Your task to perform on an android device: Open Yahoo.com Image 0: 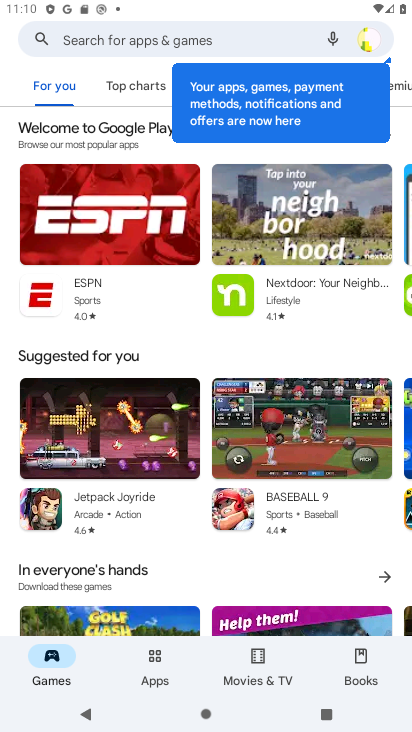
Step 0: press home button
Your task to perform on an android device: Open Yahoo.com Image 1: 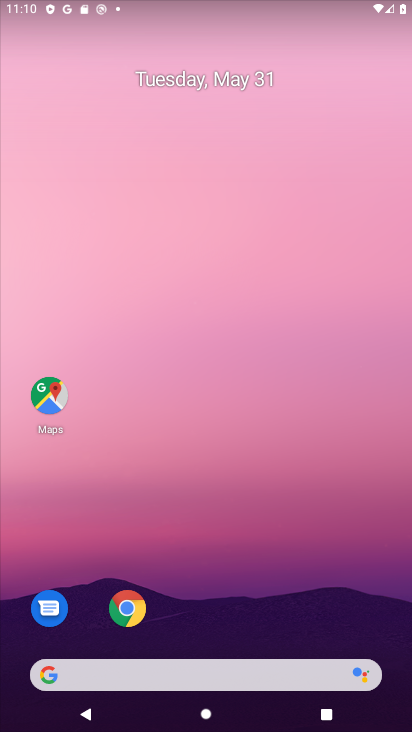
Step 1: click (110, 601)
Your task to perform on an android device: Open Yahoo.com Image 2: 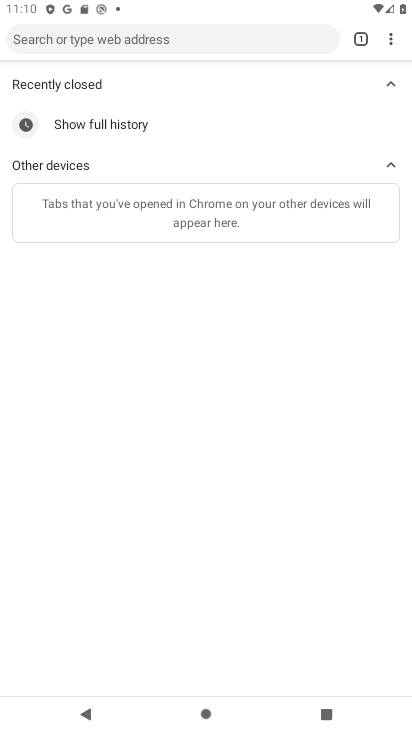
Step 2: click (200, 34)
Your task to perform on an android device: Open Yahoo.com Image 3: 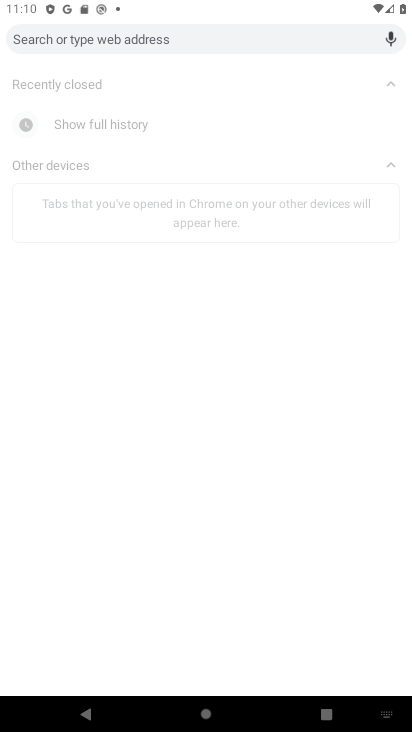
Step 3: type "Yahoo.com"
Your task to perform on an android device: Open Yahoo.com Image 4: 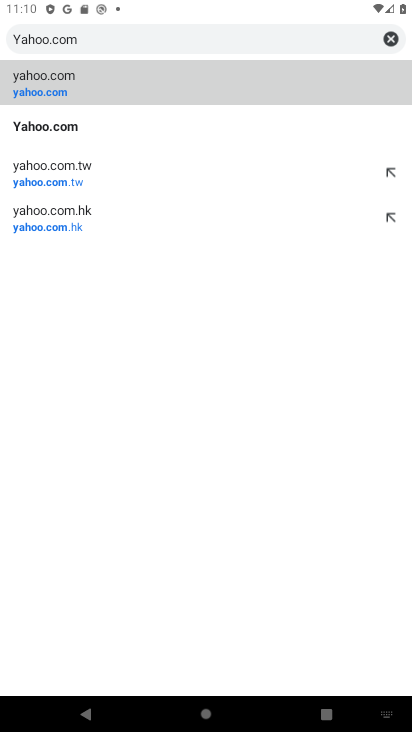
Step 4: click (33, 73)
Your task to perform on an android device: Open Yahoo.com Image 5: 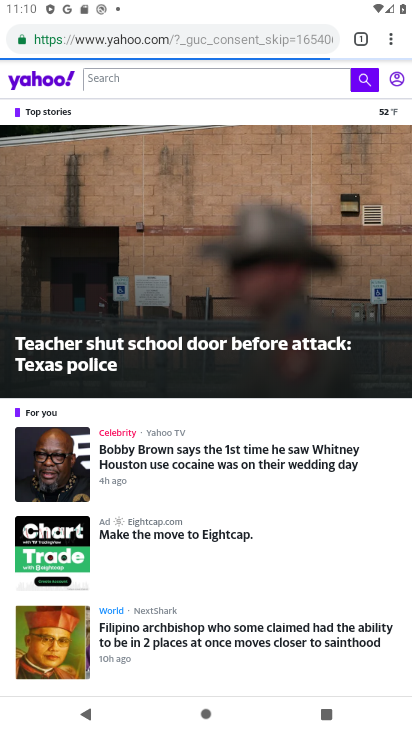
Step 5: task complete